Your task to perform on an android device: turn on the 12-hour format for clock Image 0: 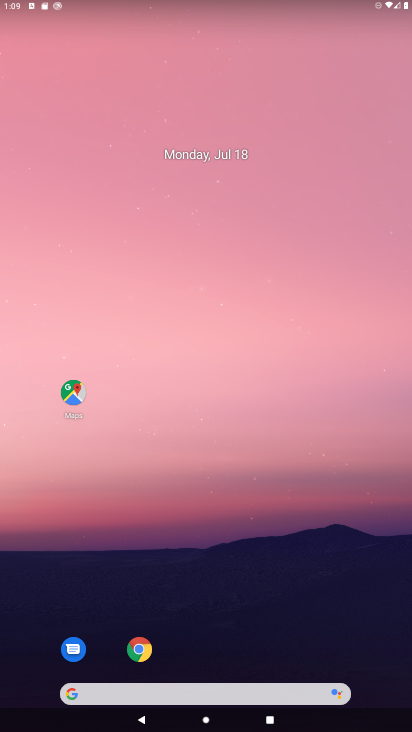
Step 0: drag from (374, 644) to (302, 223)
Your task to perform on an android device: turn on the 12-hour format for clock Image 1: 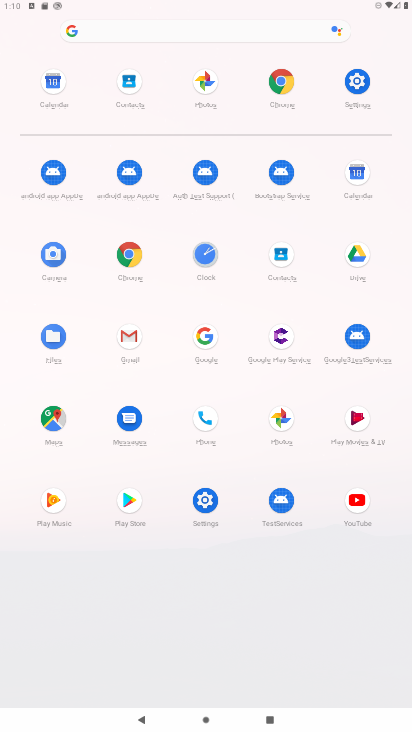
Step 1: click (202, 255)
Your task to perform on an android device: turn on the 12-hour format for clock Image 2: 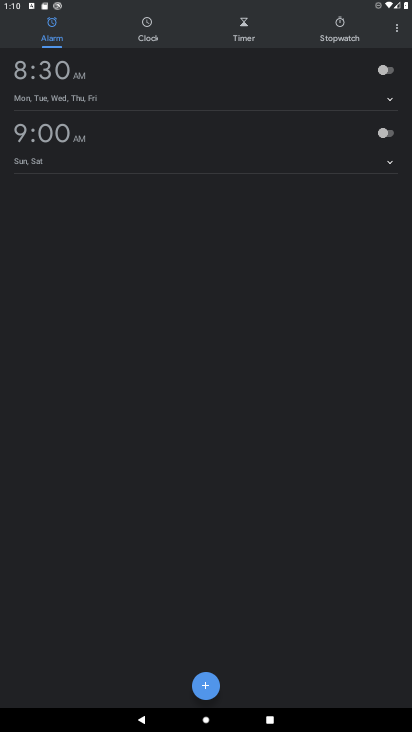
Step 2: click (396, 32)
Your task to perform on an android device: turn on the 12-hour format for clock Image 3: 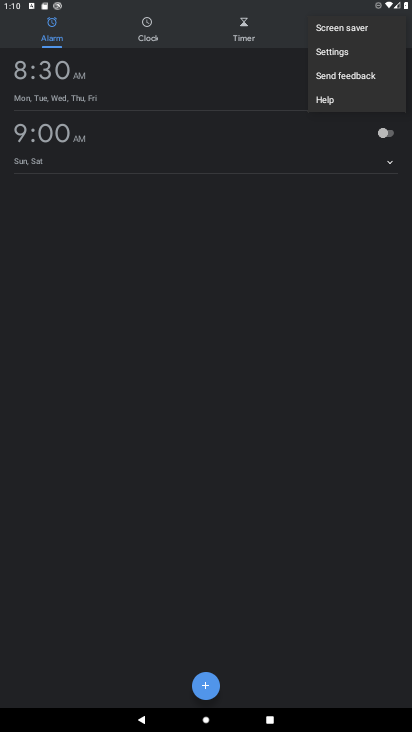
Step 3: click (334, 49)
Your task to perform on an android device: turn on the 12-hour format for clock Image 4: 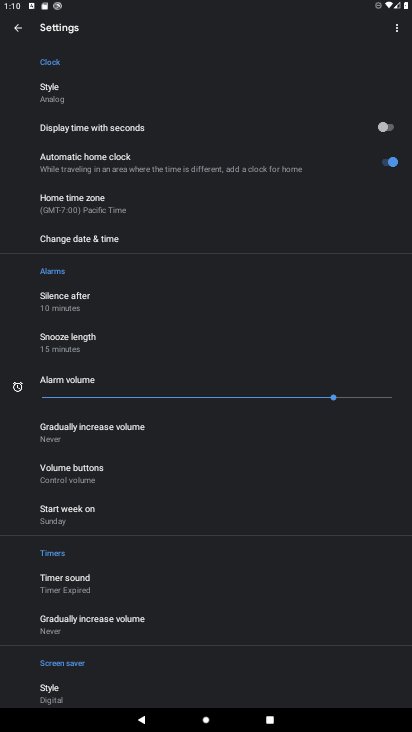
Step 4: click (68, 234)
Your task to perform on an android device: turn on the 12-hour format for clock Image 5: 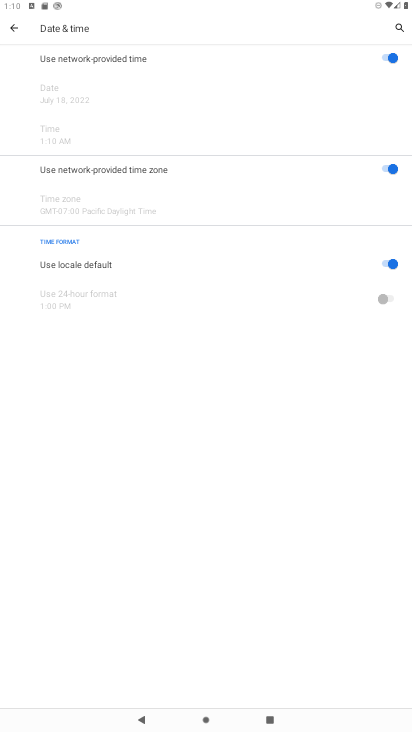
Step 5: task complete